Your task to perform on an android device: allow cookies in the chrome app Image 0: 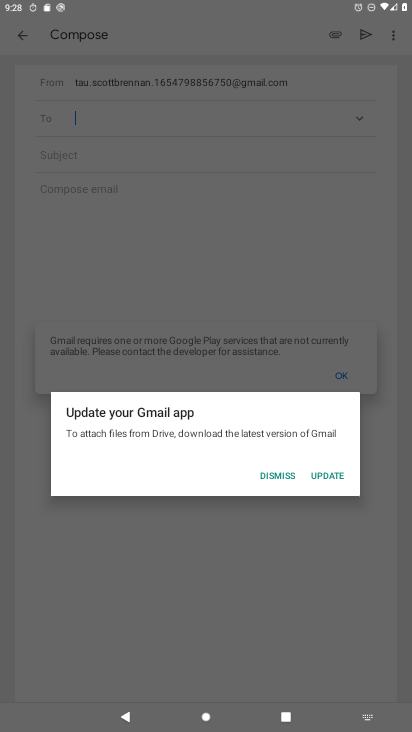
Step 0: press home button
Your task to perform on an android device: allow cookies in the chrome app Image 1: 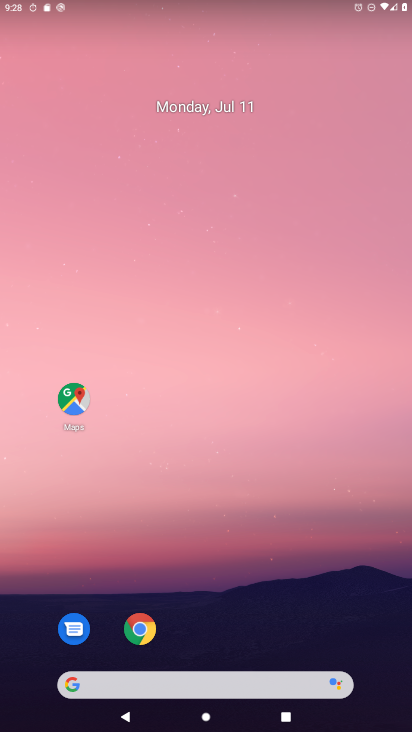
Step 1: drag from (217, 646) to (239, 141)
Your task to perform on an android device: allow cookies in the chrome app Image 2: 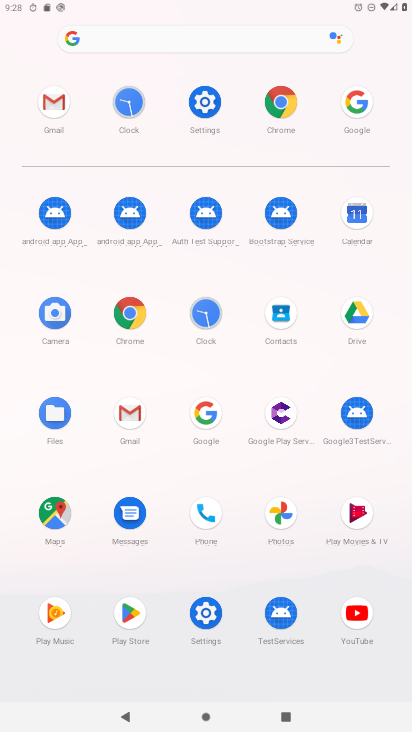
Step 2: click (284, 95)
Your task to perform on an android device: allow cookies in the chrome app Image 3: 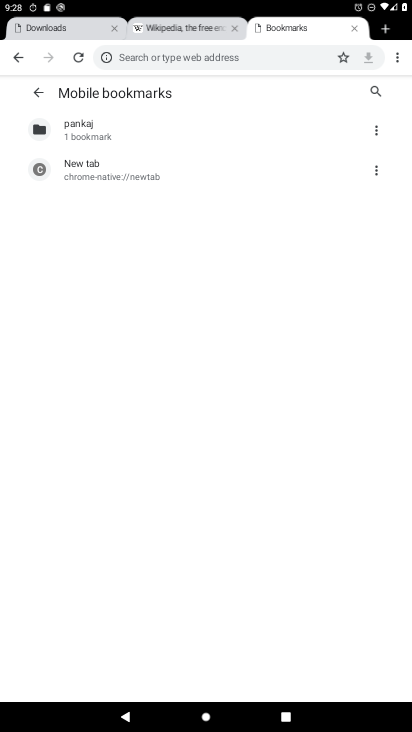
Step 3: click (392, 54)
Your task to perform on an android device: allow cookies in the chrome app Image 4: 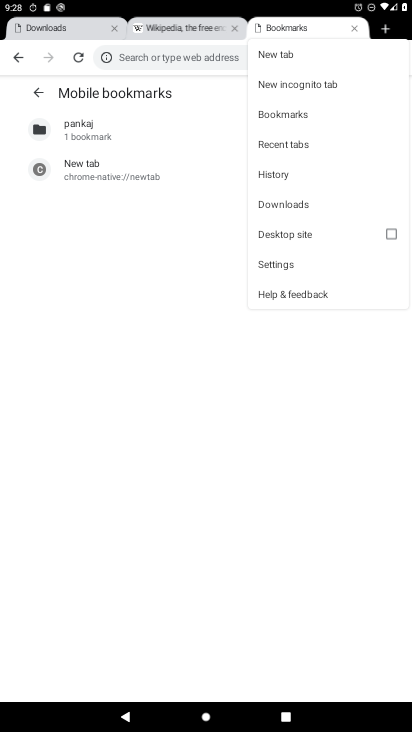
Step 4: click (301, 262)
Your task to perform on an android device: allow cookies in the chrome app Image 5: 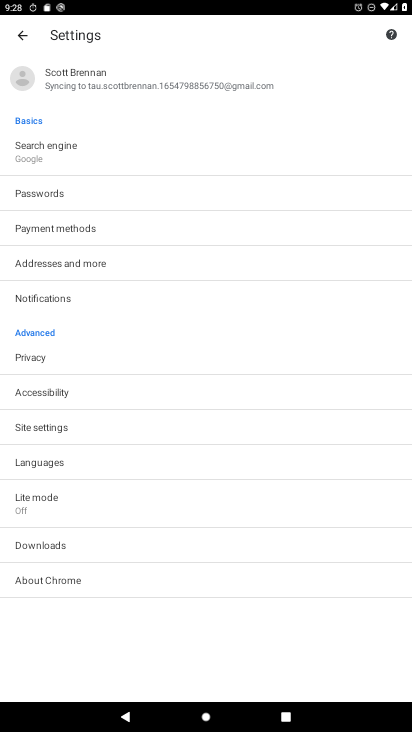
Step 5: click (38, 427)
Your task to perform on an android device: allow cookies in the chrome app Image 6: 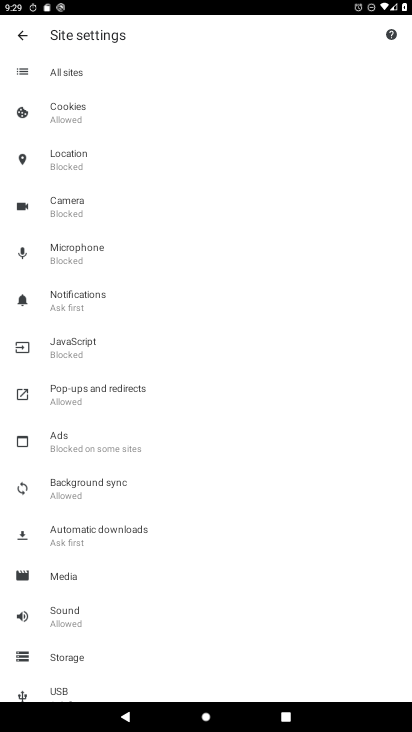
Step 6: click (81, 116)
Your task to perform on an android device: allow cookies in the chrome app Image 7: 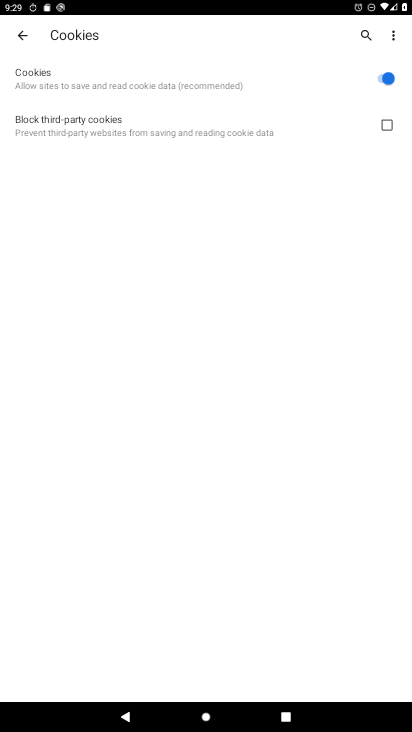
Step 7: task complete